Your task to perform on an android device: Open eBay Image 0: 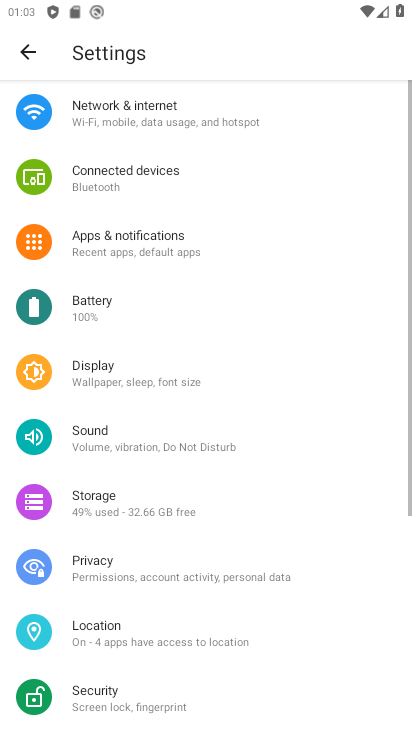
Step 0: press home button
Your task to perform on an android device: Open eBay Image 1: 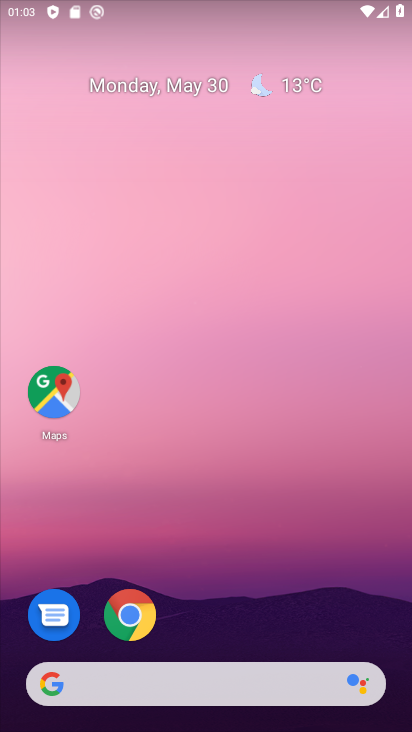
Step 1: click (144, 625)
Your task to perform on an android device: Open eBay Image 2: 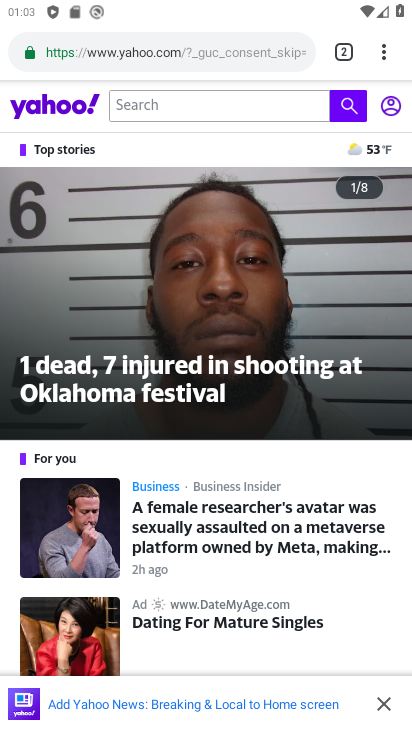
Step 2: click (340, 46)
Your task to perform on an android device: Open eBay Image 3: 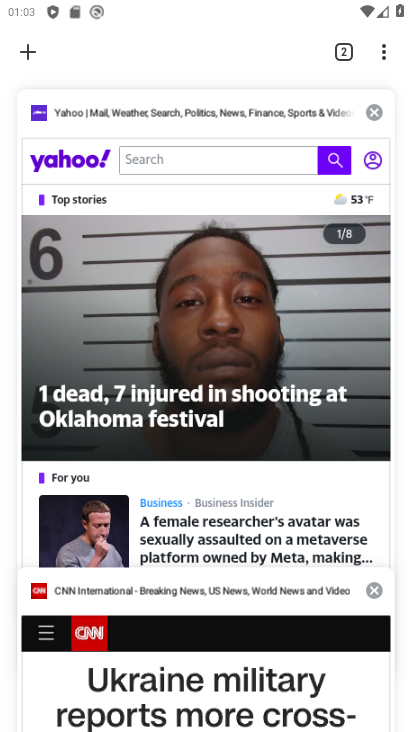
Step 3: click (23, 60)
Your task to perform on an android device: Open eBay Image 4: 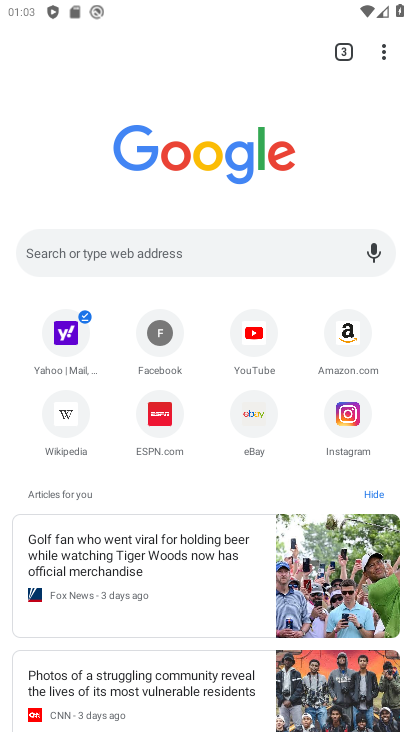
Step 4: click (252, 432)
Your task to perform on an android device: Open eBay Image 5: 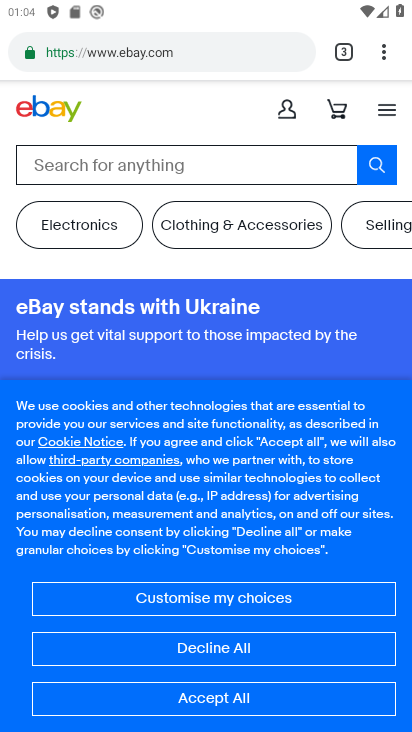
Step 5: task complete